Your task to perform on an android device: Do I have any events today? Image 0: 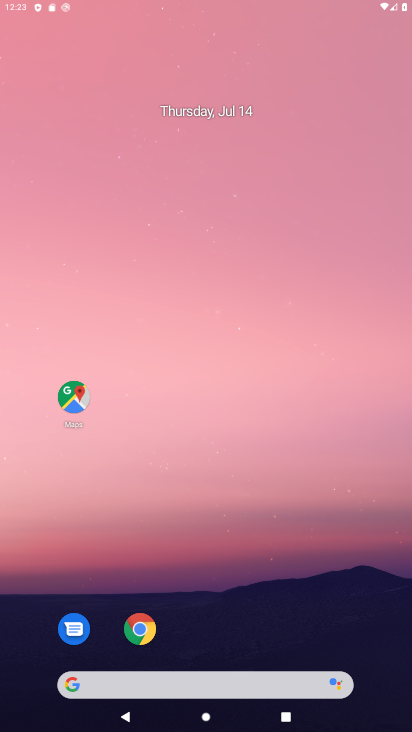
Step 0: press home button
Your task to perform on an android device: Do I have any events today? Image 1: 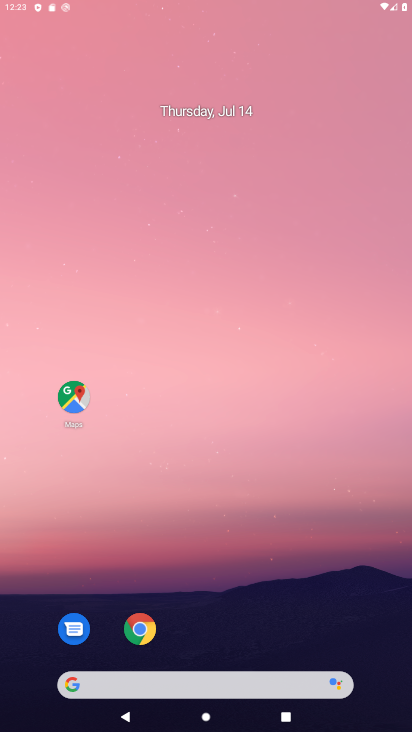
Step 1: click (152, 624)
Your task to perform on an android device: Do I have any events today? Image 2: 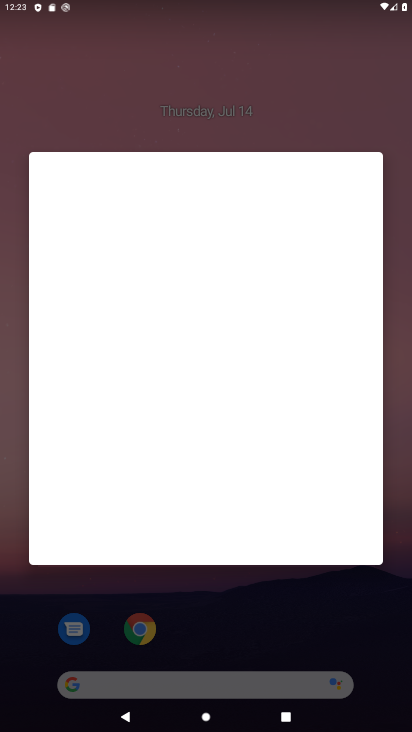
Step 2: press home button
Your task to perform on an android device: Do I have any events today? Image 3: 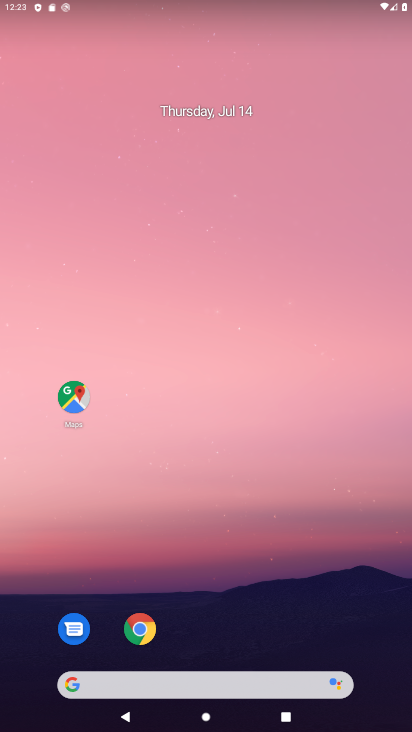
Step 3: drag from (214, 637) to (235, 8)
Your task to perform on an android device: Do I have any events today? Image 4: 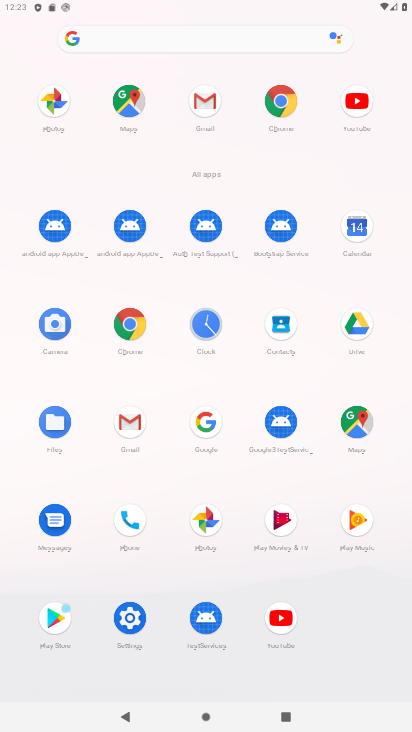
Step 4: click (361, 226)
Your task to perform on an android device: Do I have any events today? Image 5: 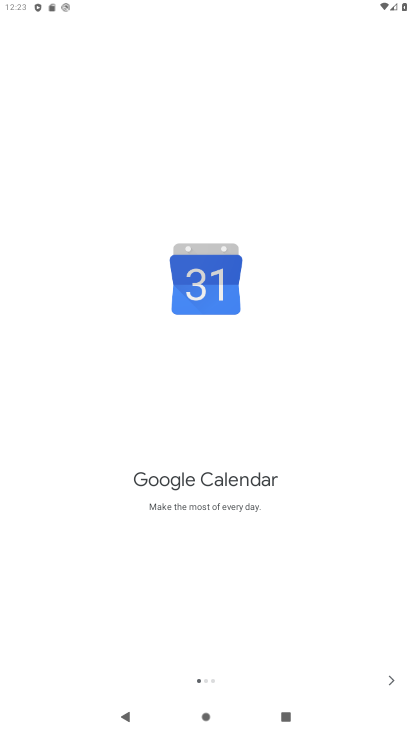
Step 5: click (391, 677)
Your task to perform on an android device: Do I have any events today? Image 6: 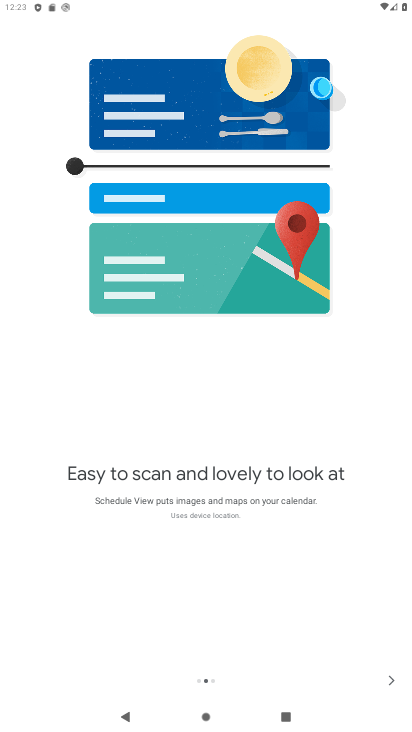
Step 6: click (391, 677)
Your task to perform on an android device: Do I have any events today? Image 7: 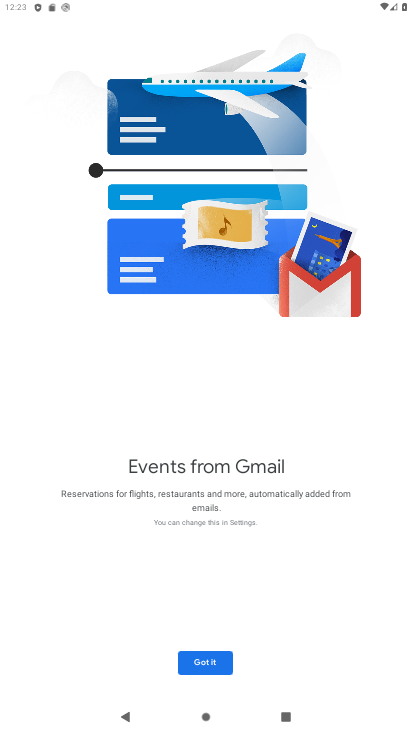
Step 7: click (187, 660)
Your task to perform on an android device: Do I have any events today? Image 8: 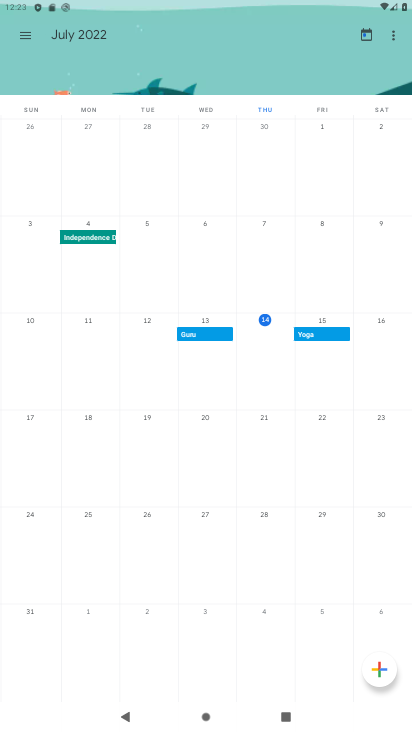
Step 8: click (263, 326)
Your task to perform on an android device: Do I have any events today? Image 9: 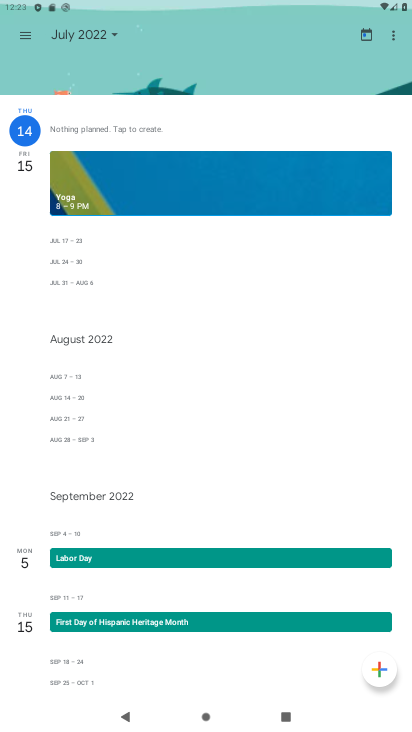
Step 9: task complete